Your task to perform on an android device: turn off location history Image 0: 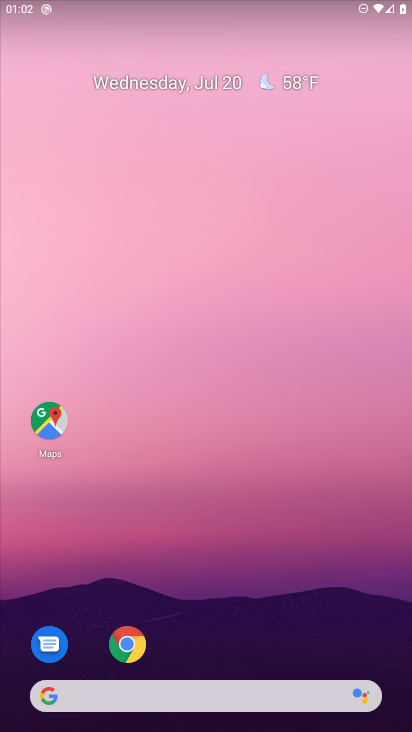
Step 0: drag from (25, 679) to (157, 188)
Your task to perform on an android device: turn off location history Image 1: 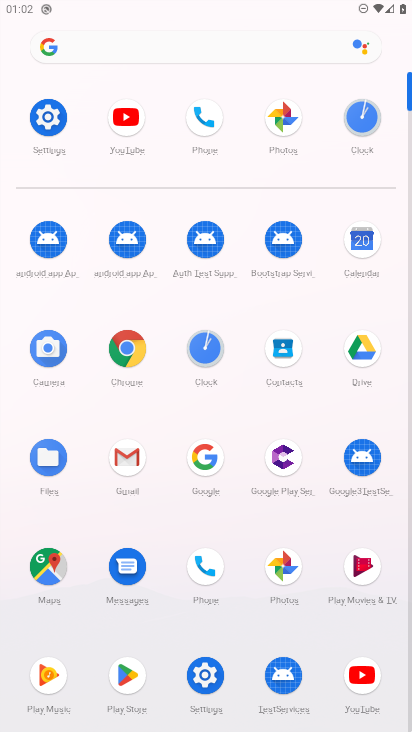
Step 1: click (201, 684)
Your task to perform on an android device: turn off location history Image 2: 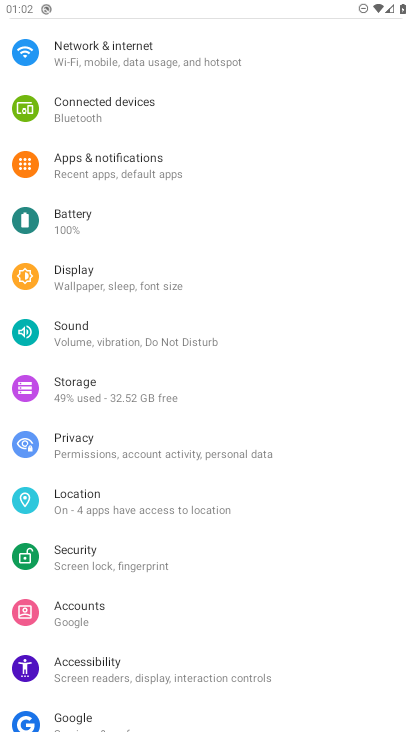
Step 2: click (84, 497)
Your task to perform on an android device: turn off location history Image 3: 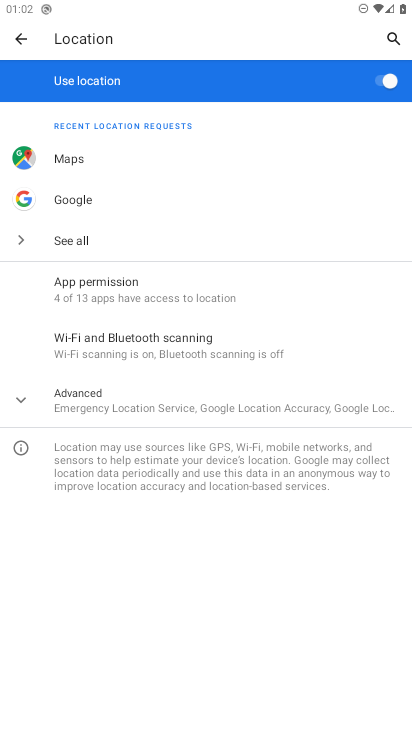
Step 3: click (77, 402)
Your task to perform on an android device: turn off location history Image 4: 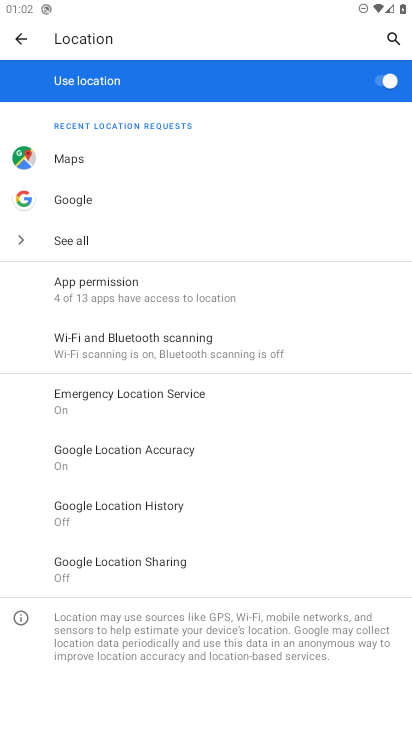
Step 4: task complete